Your task to perform on an android device: Open Maps and search for coffee Image 0: 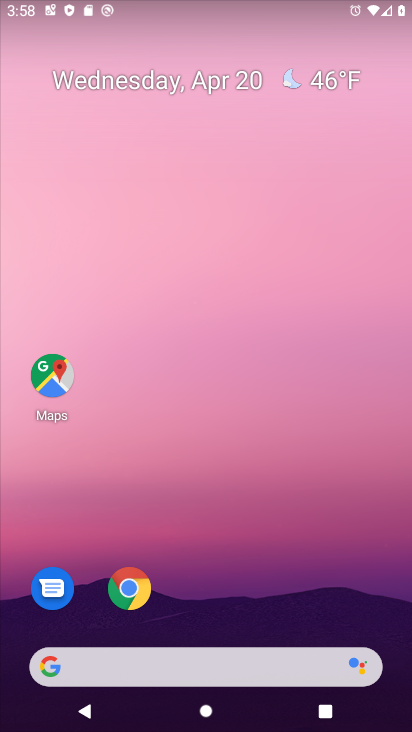
Step 0: click (56, 369)
Your task to perform on an android device: Open Maps and search for coffee Image 1: 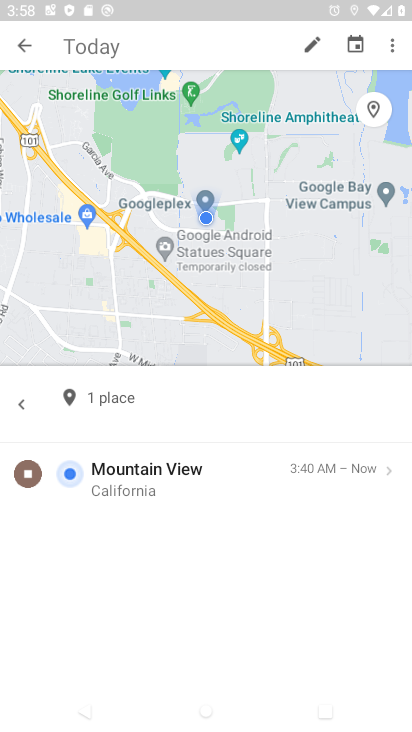
Step 1: click (157, 51)
Your task to perform on an android device: Open Maps and search for coffee Image 2: 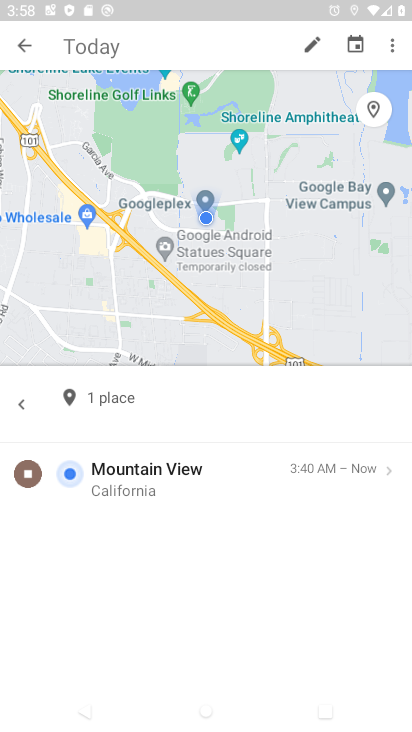
Step 2: click (24, 34)
Your task to perform on an android device: Open Maps and search for coffee Image 3: 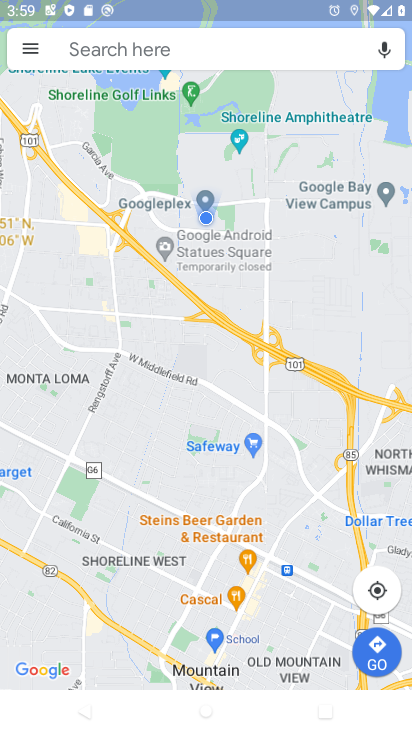
Step 3: click (261, 54)
Your task to perform on an android device: Open Maps and search for coffee Image 4: 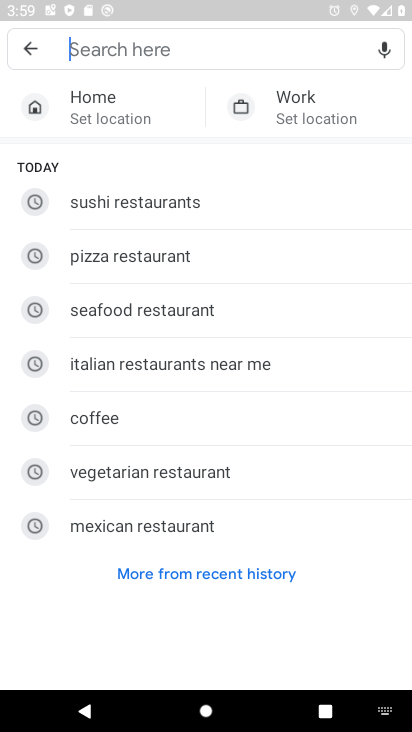
Step 4: click (151, 419)
Your task to perform on an android device: Open Maps and search for coffee Image 5: 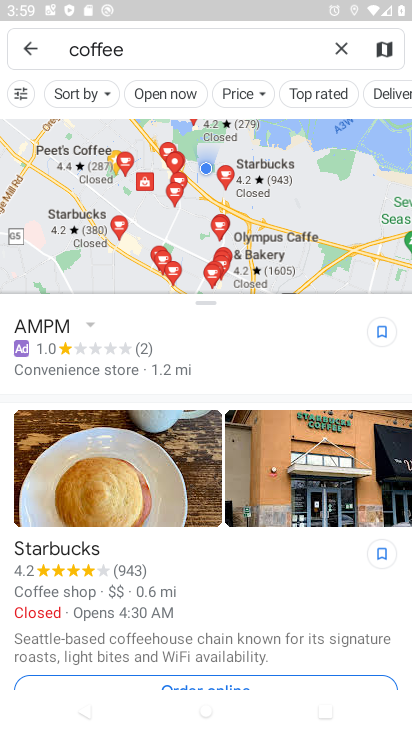
Step 5: task complete